Your task to perform on an android device: Open Youtube and go to the subscriptions tab Image 0: 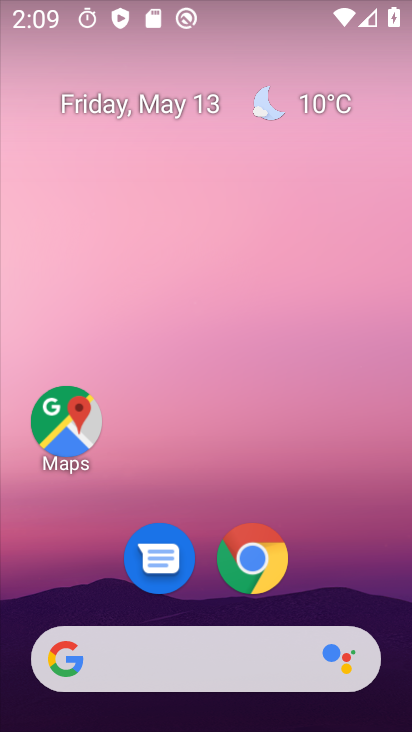
Step 0: drag from (219, 614) to (202, 90)
Your task to perform on an android device: Open Youtube and go to the subscriptions tab Image 1: 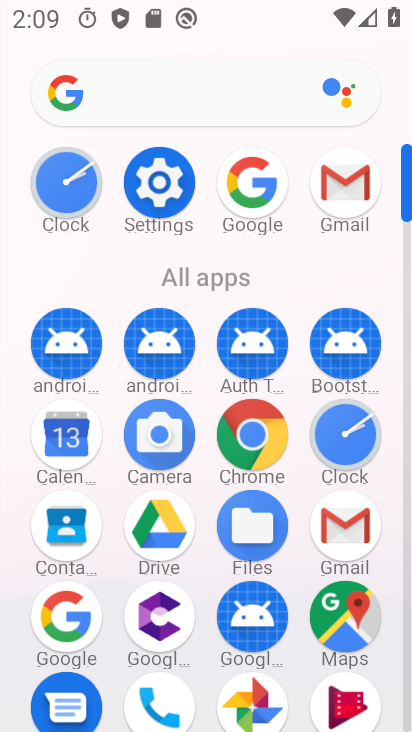
Step 1: drag from (294, 577) to (294, 238)
Your task to perform on an android device: Open Youtube and go to the subscriptions tab Image 2: 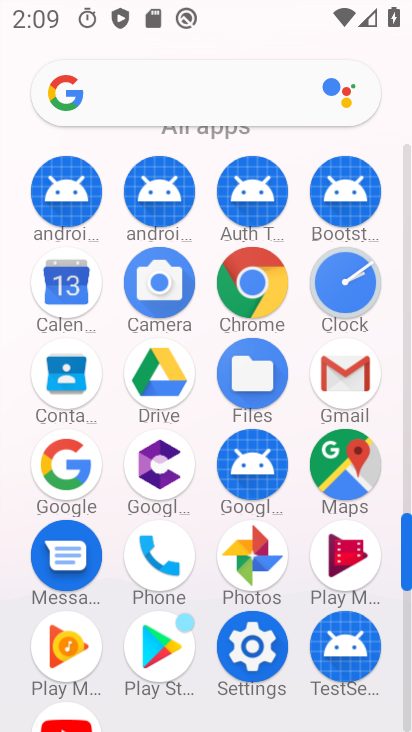
Step 2: drag from (196, 637) to (197, 397)
Your task to perform on an android device: Open Youtube and go to the subscriptions tab Image 3: 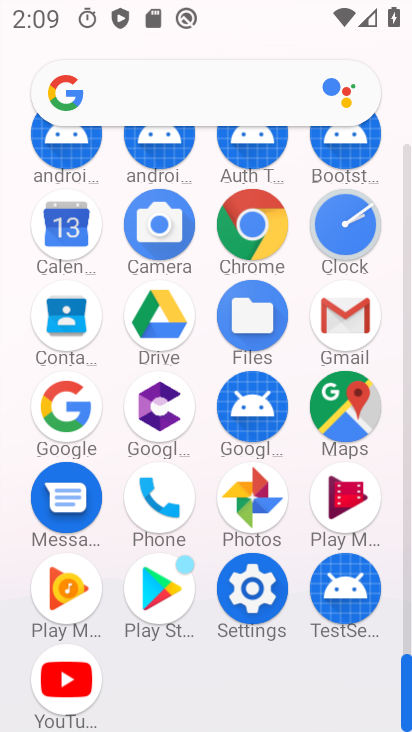
Step 3: click (69, 666)
Your task to perform on an android device: Open Youtube and go to the subscriptions tab Image 4: 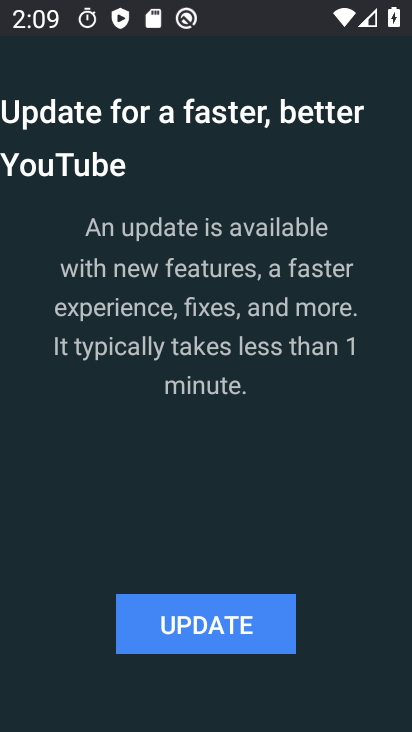
Step 4: click (128, 626)
Your task to perform on an android device: Open Youtube and go to the subscriptions tab Image 5: 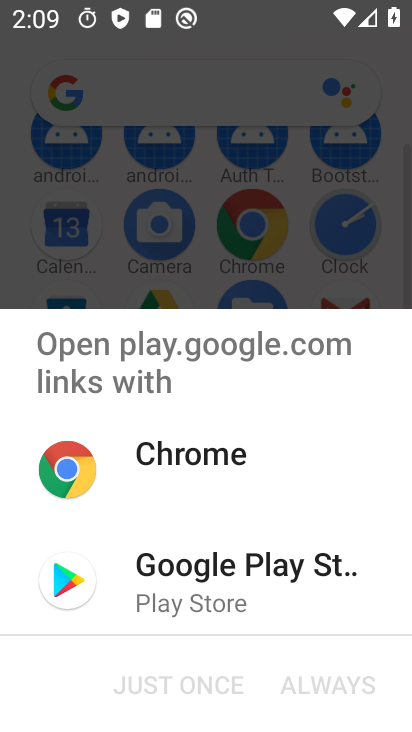
Step 5: click (227, 566)
Your task to perform on an android device: Open Youtube and go to the subscriptions tab Image 6: 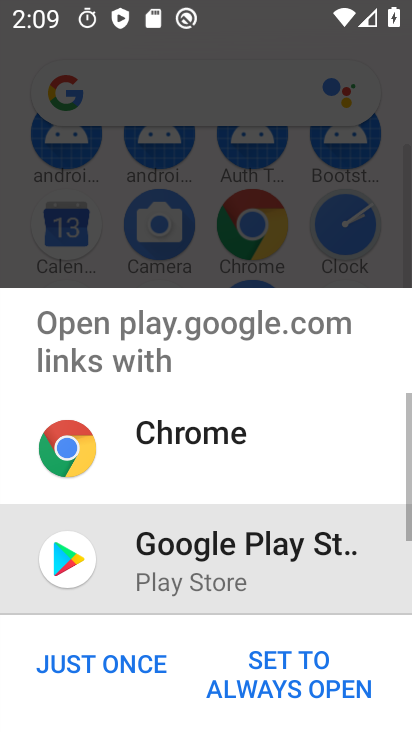
Step 6: click (151, 680)
Your task to perform on an android device: Open Youtube and go to the subscriptions tab Image 7: 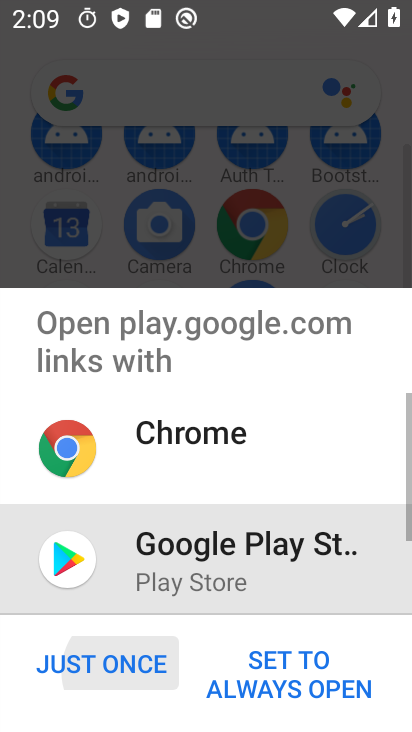
Step 7: click (91, 635)
Your task to perform on an android device: Open Youtube and go to the subscriptions tab Image 8: 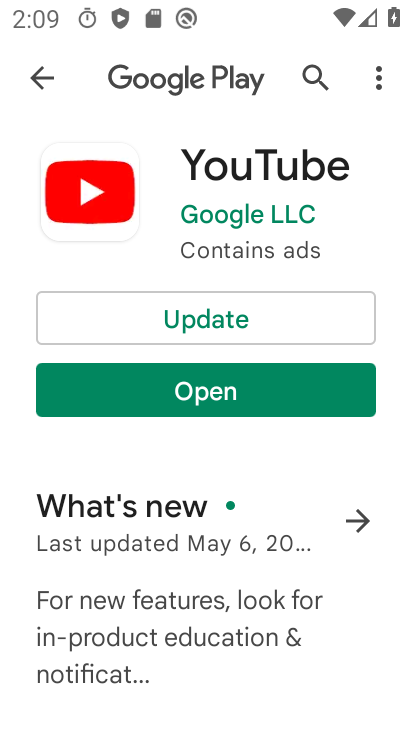
Step 8: click (224, 400)
Your task to perform on an android device: Open Youtube and go to the subscriptions tab Image 9: 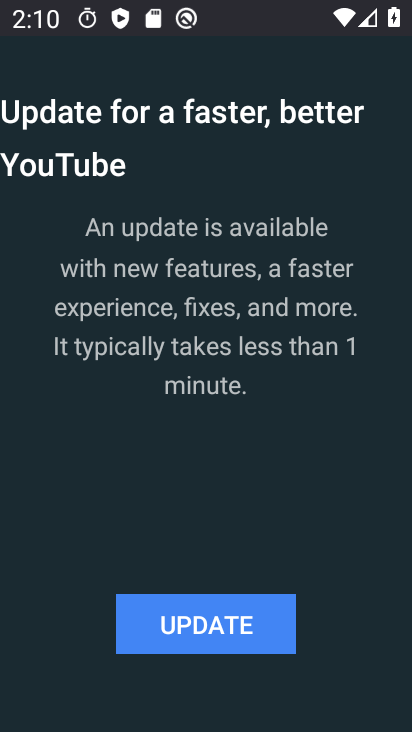
Step 9: click (198, 623)
Your task to perform on an android device: Open Youtube and go to the subscriptions tab Image 10: 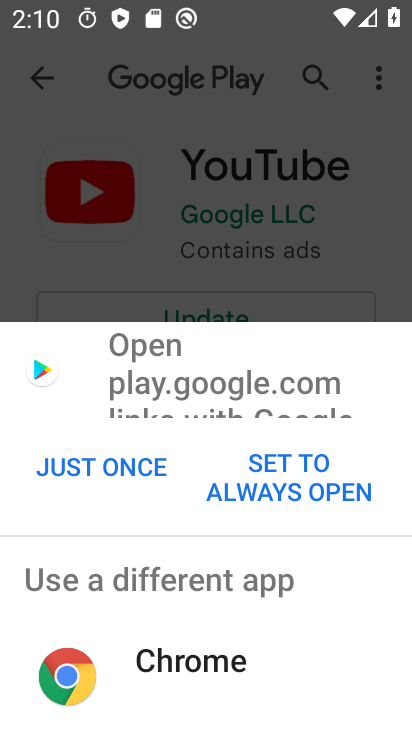
Step 10: click (132, 472)
Your task to perform on an android device: Open Youtube and go to the subscriptions tab Image 11: 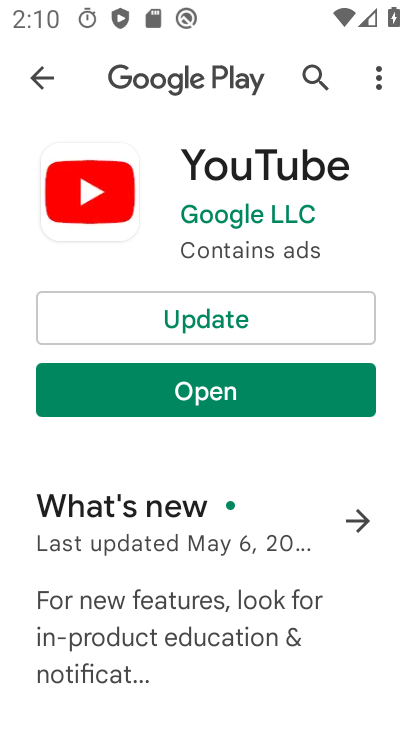
Step 11: click (183, 383)
Your task to perform on an android device: Open Youtube and go to the subscriptions tab Image 12: 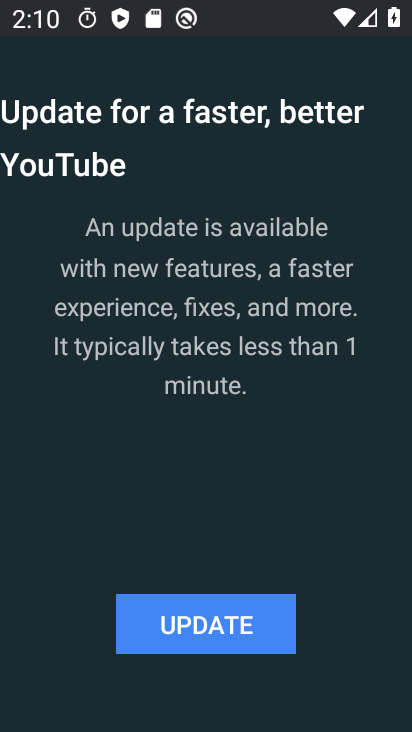
Step 12: click (164, 633)
Your task to perform on an android device: Open Youtube and go to the subscriptions tab Image 13: 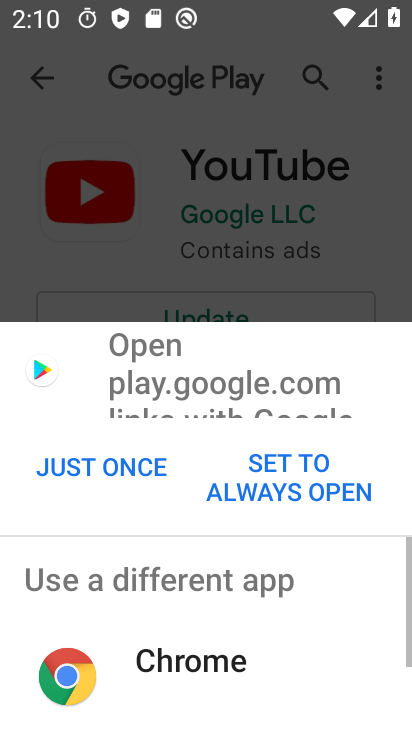
Step 13: click (138, 466)
Your task to perform on an android device: Open Youtube and go to the subscriptions tab Image 14: 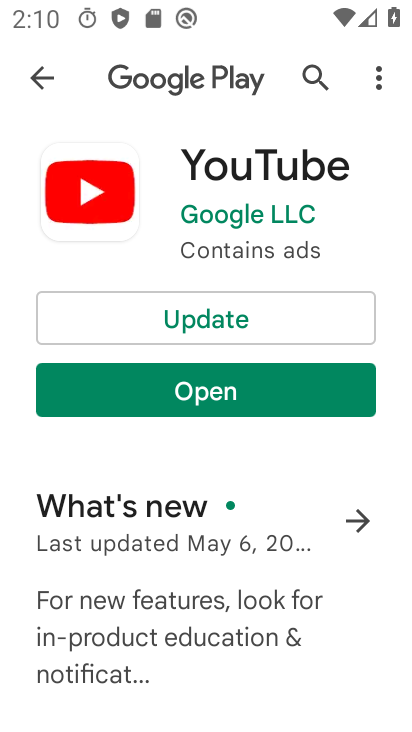
Step 14: click (221, 319)
Your task to perform on an android device: Open Youtube and go to the subscriptions tab Image 15: 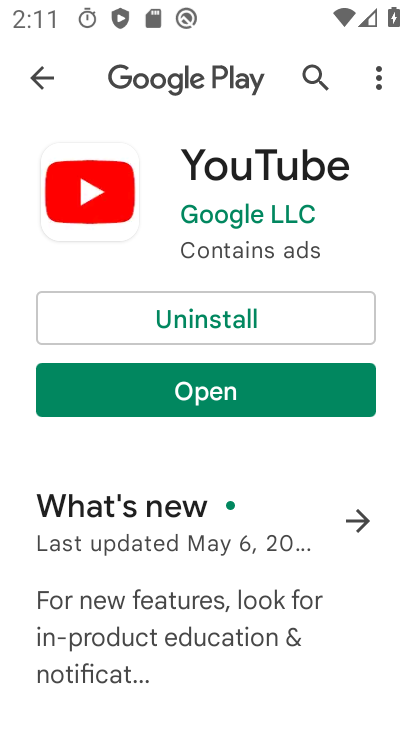
Step 15: click (248, 399)
Your task to perform on an android device: Open Youtube and go to the subscriptions tab Image 16: 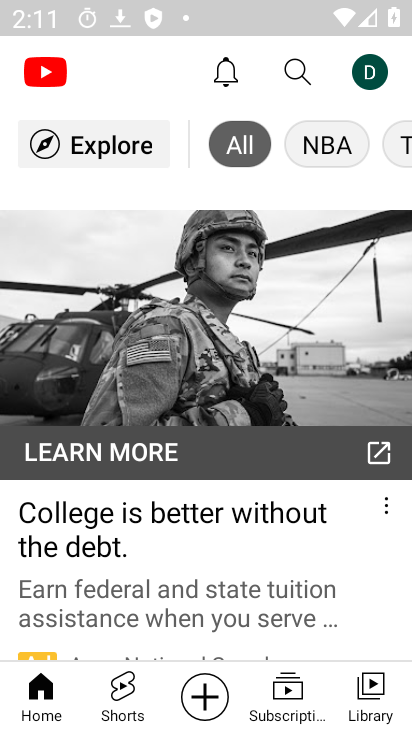
Step 16: click (286, 694)
Your task to perform on an android device: Open Youtube and go to the subscriptions tab Image 17: 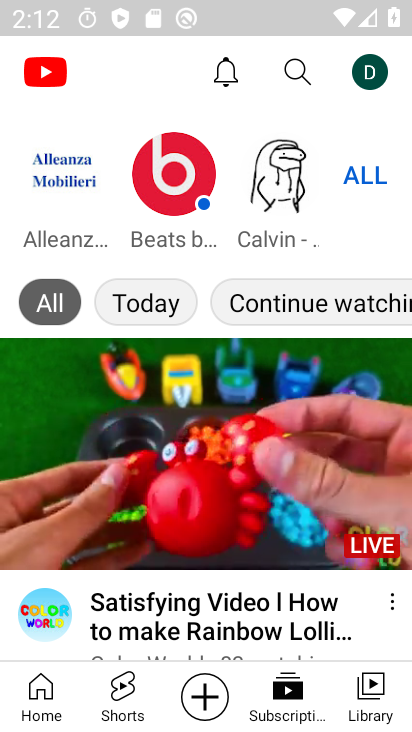
Step 17: task complete